Your task to perform on an android device: change the clock display to analog Image 0: 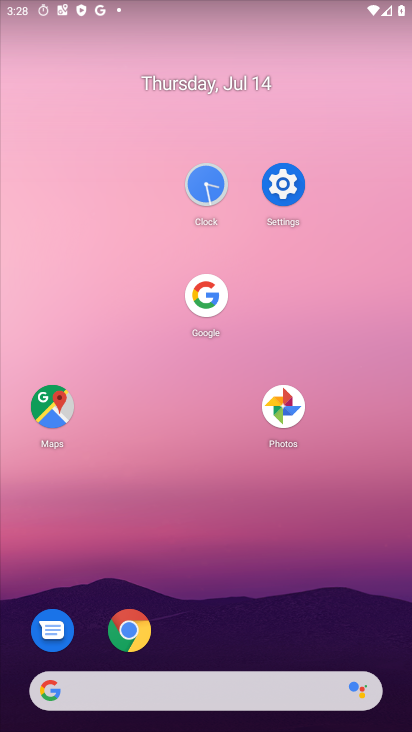
Step 0: click (208, 189)
Your task to perform on an android device: change the clock display to analog Image 1: 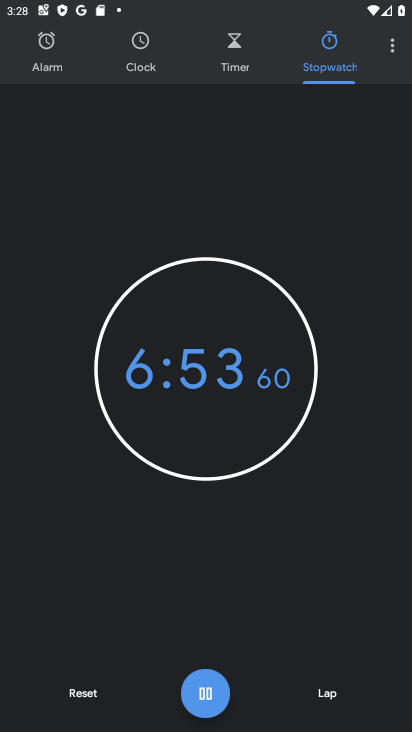
Step 1: click (385, 52)
Your task to perform on an android device: change the clock display to analog Image 2: 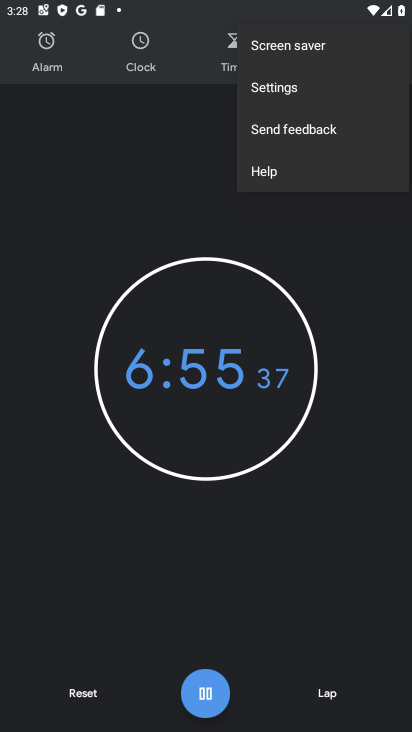
Step 2: click (342, 86)
Your task to perform on an android device: change the clock display to analog Image 3: 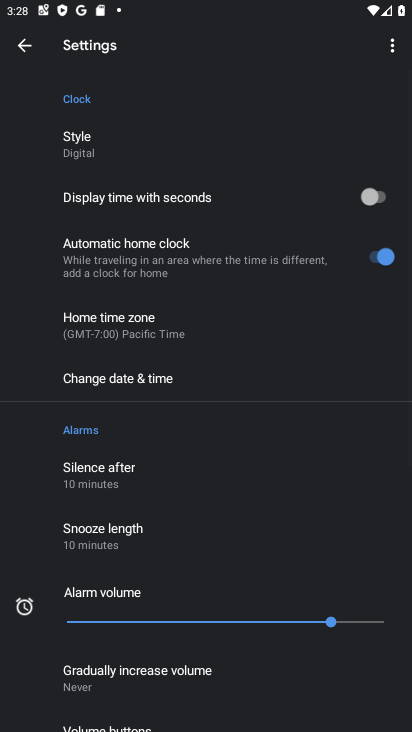
Step 3: click (80, 135)
Your task to perform on an android device: change the clock display to analog Image 4: 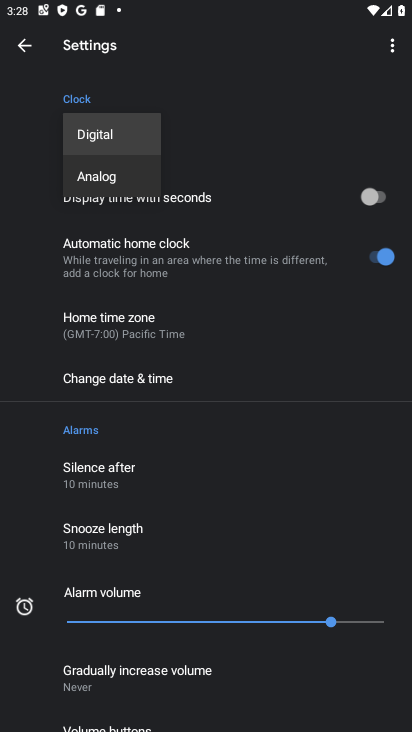
Step 4: click (110, 172)
Your task to perform on an android device: change the clock display to analog Image 5: 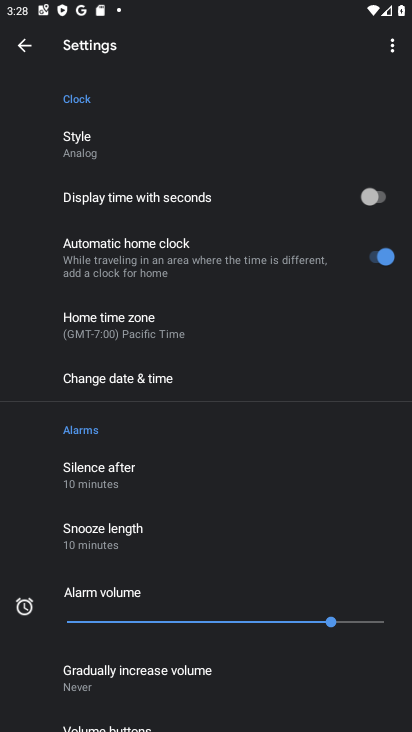
Step 5: task complete